Your task to perform on an android device: Open my contact list Image 0: 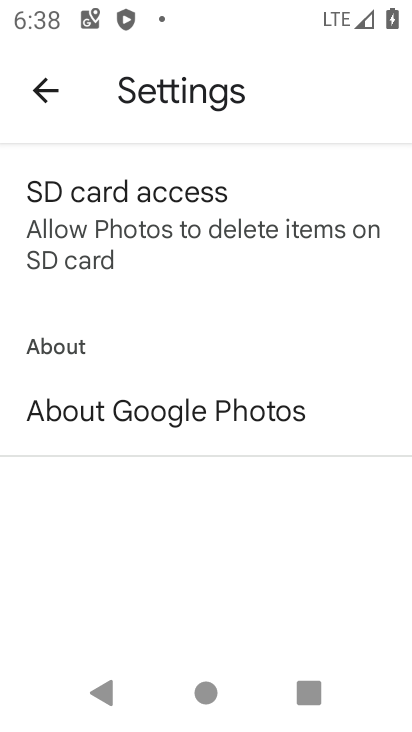
Step 0: press home button
Your task to perform on an android device: Open my contact list Image 1: 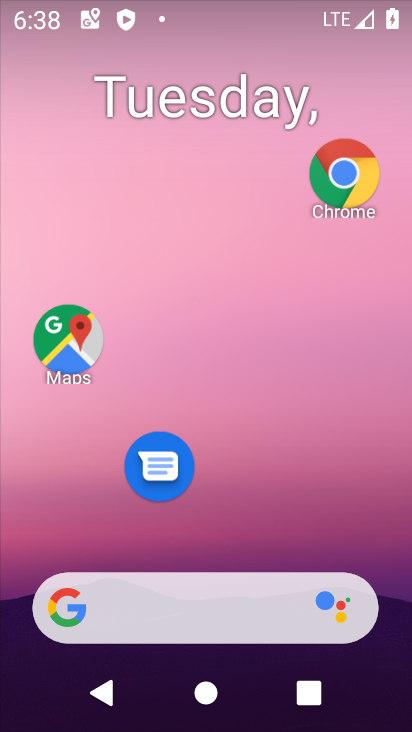
Step 1: drag from (325, 468) to (209, 74)
Your task to perform on an android device: Open my contact list Image 2: 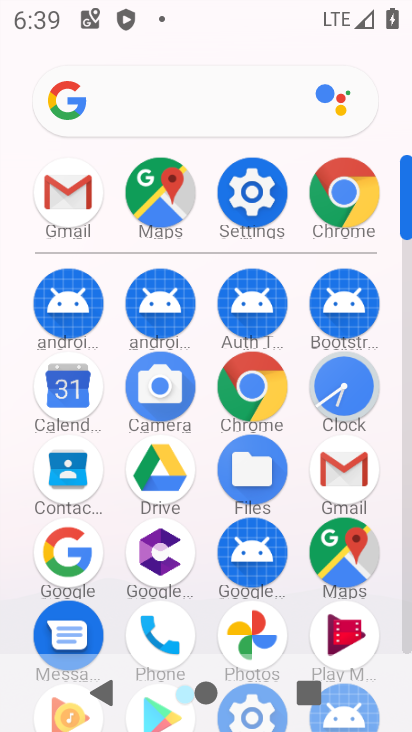
Step 2: drag from (289, 600) to (322, 293)
Your task to perform on an android device: Open my contact list Image 3: 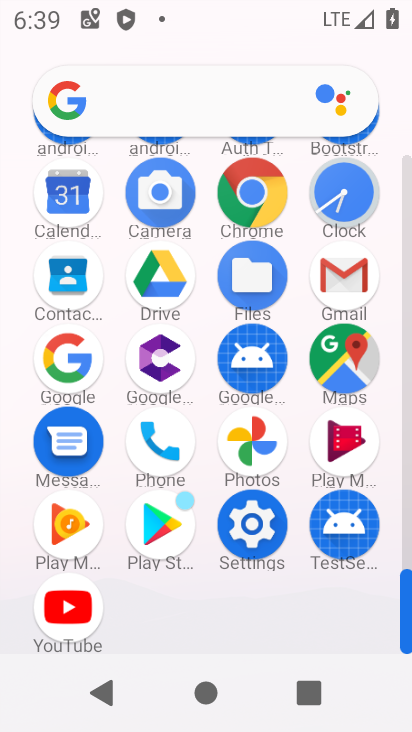
Step 3: click (75, 270)
Your task to perform on an android device: Open my contact list Image 4: 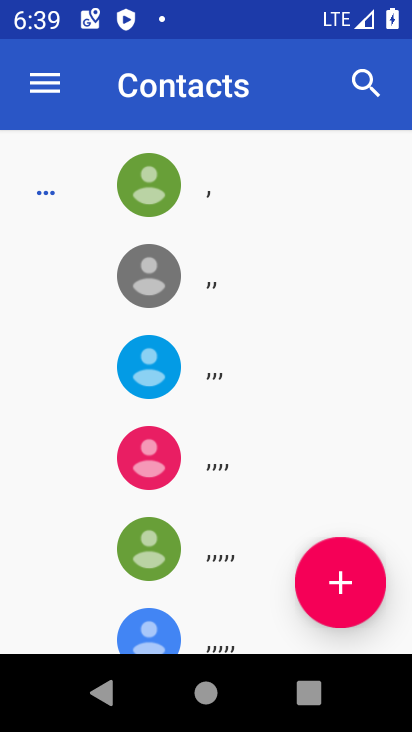
Step 4: task complete